Your task to perform on an android device: change keyboard looks Image 0: 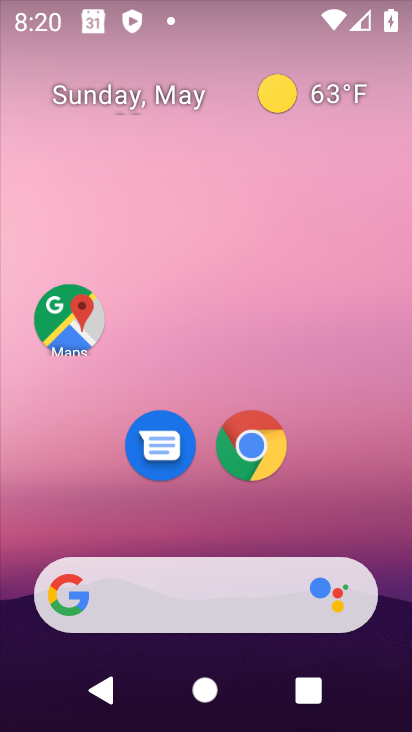
Step 0: drag from (385, 518) to (368, 183)
Your task to perform on an android device: change keyboard looks Image 1: 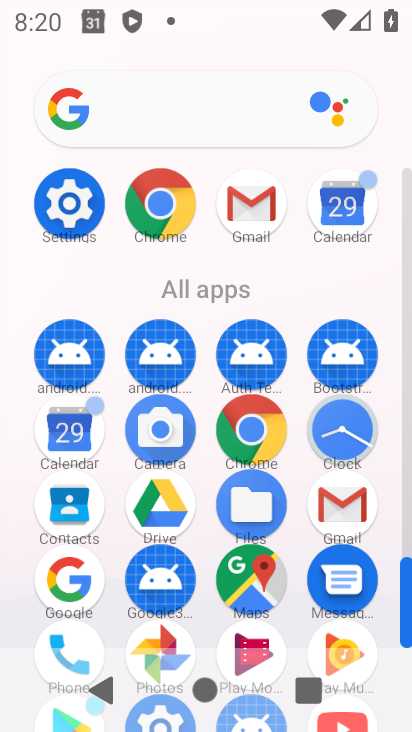
Step 1: click (79, 224)
Your task to perform on an android device: change keyboard looks Image 2: 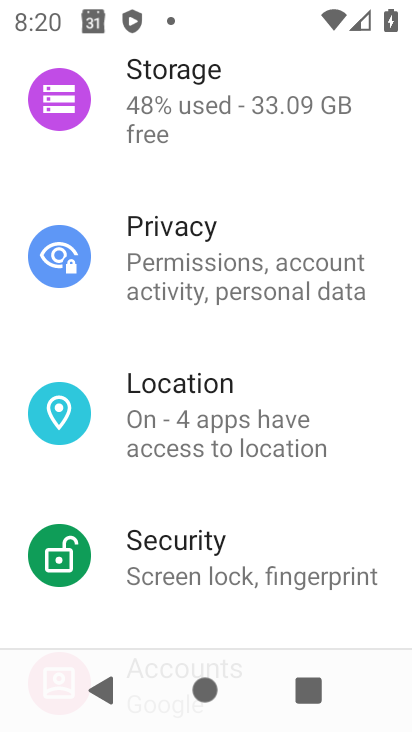
Step 2: drag from (358, 443) to (381, 336)
Your task to perform on an android device: change keyboard looks Image 3: 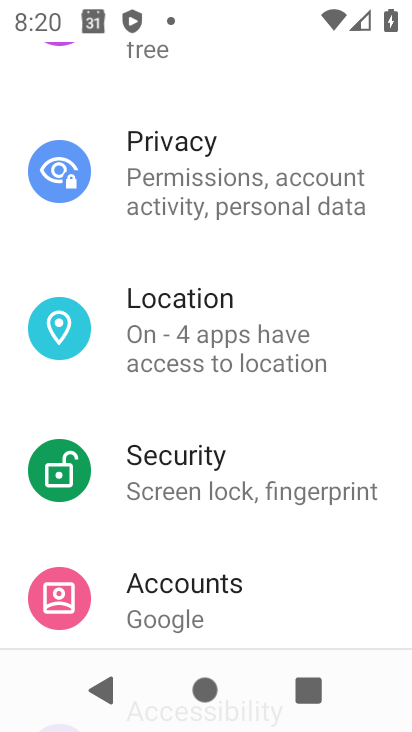
Step 3: drag from (368, 447) to (374, 330)
Your task to perform on an android device: change keyboard looks Image 4: 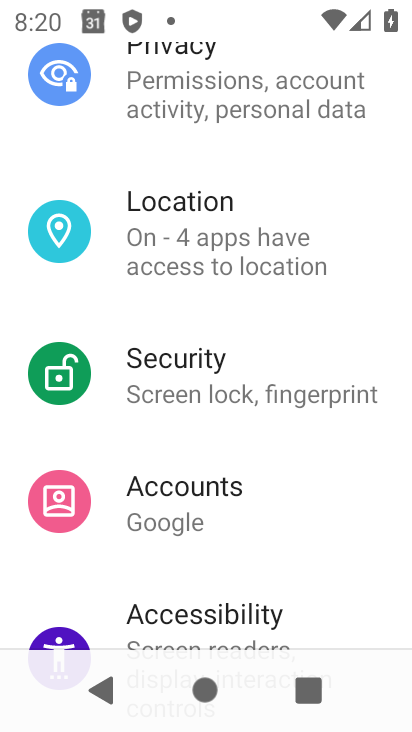
Step 4: drag from (358, 480) to (354, 356)
Your task to perform on an android device: change keyboard looks Image 5: 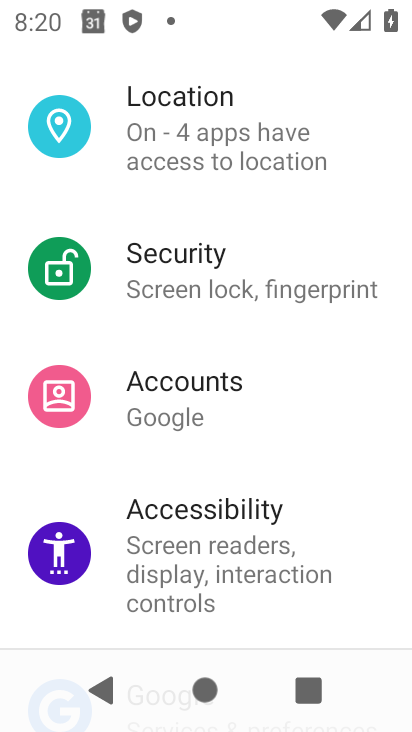
Step 5: drag from (345, 514) to (348, 349)
Your task to perform on an android device: change keyboard looks Image 6: 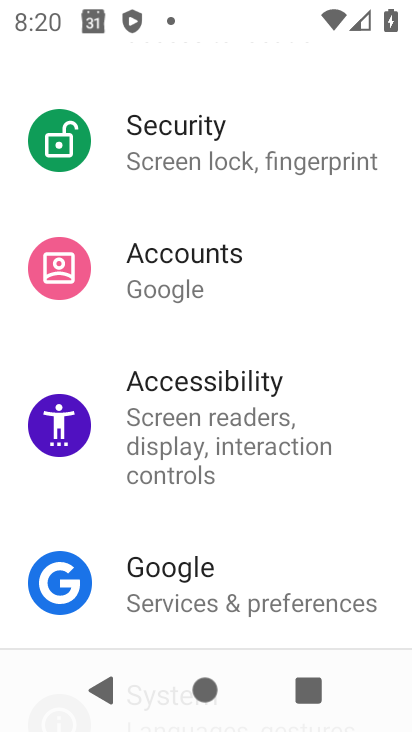
Step 6: drag from (341, 535) to (330, 292)
Your task to perform on an android device: change keyboard looks Image 7: 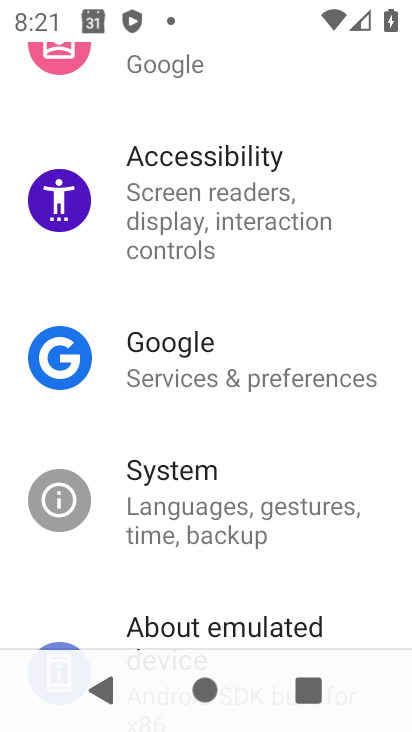
Step 7: click (226, 511)
Your task to perform on an android device: change keyboard looks Image 8: 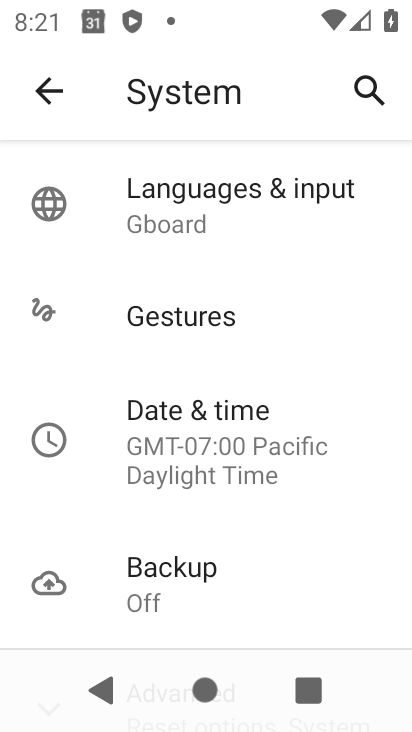
Step 8: click (236, 210)
Your task to perform on an android device: change keyboard looks Image 9: 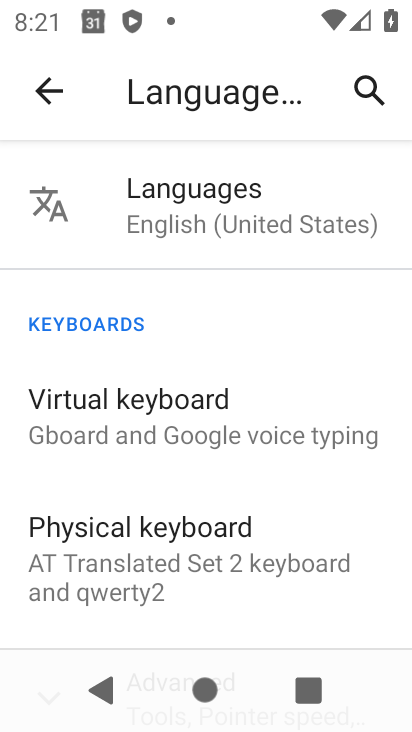
Step 9: click (225, 429)
Your task to perform on an android device: change keyboard looks Image 10: 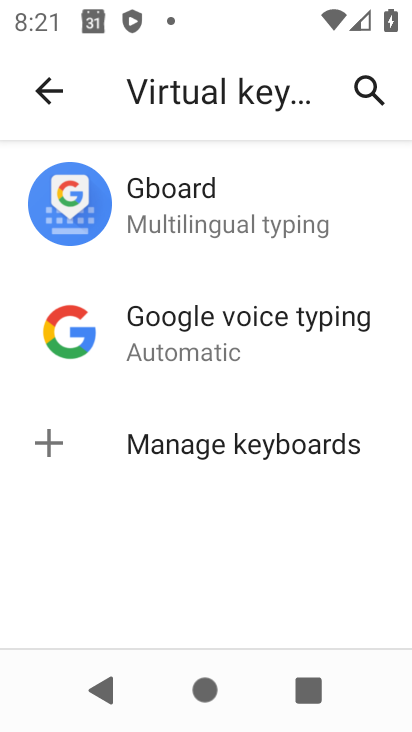
Step 10: click (258, 183)
Your task to perform on an android device: change keyboard looks Image 11: 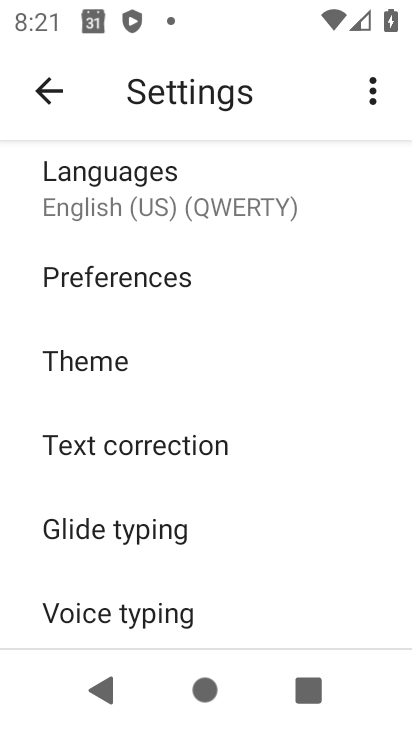
Step 11: drag from (317, 404) to (326, 287)
Your task to perform on an android device: change keyboard looks Image 12: 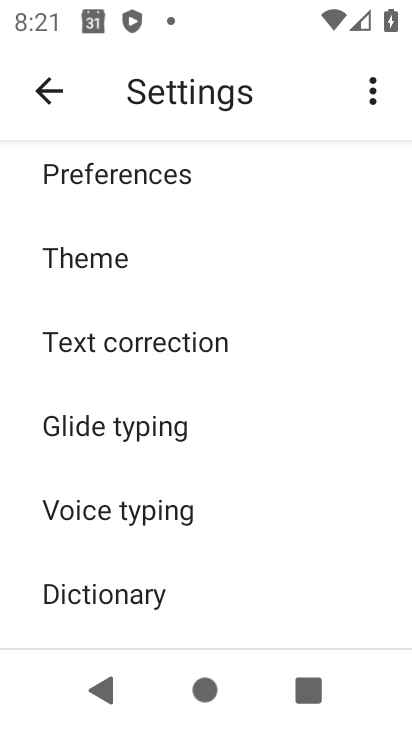
Step 12: click (167, 269)
Your task to perform on an android device: change keyboard looks Image 13: 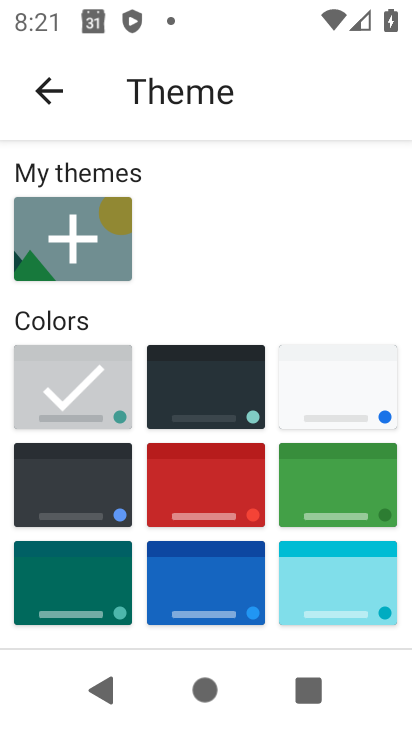
Step 13: click (231, 480)
Your task to perform on an android device: change keyboard looks Image 14: 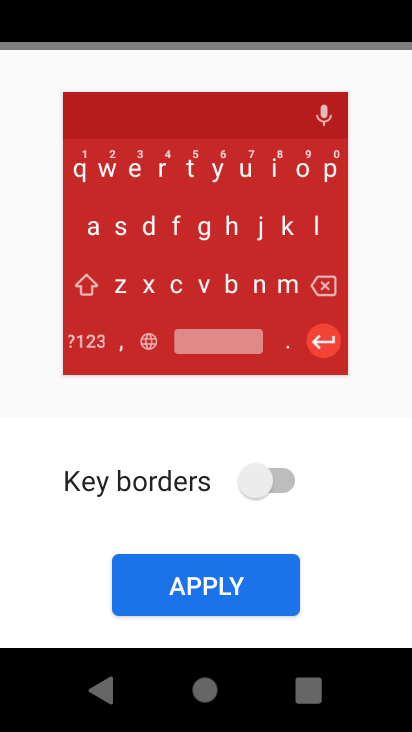
Step 14: click (257, 594)
Your task to perform on an android device: change keyboard looks Image 15: 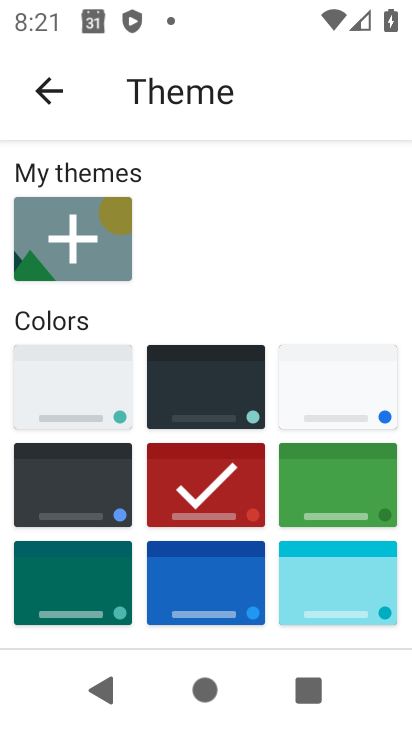
Step 15: task complete